Your task to perform on an android device: refresh tabs in the chrome app Image 0: 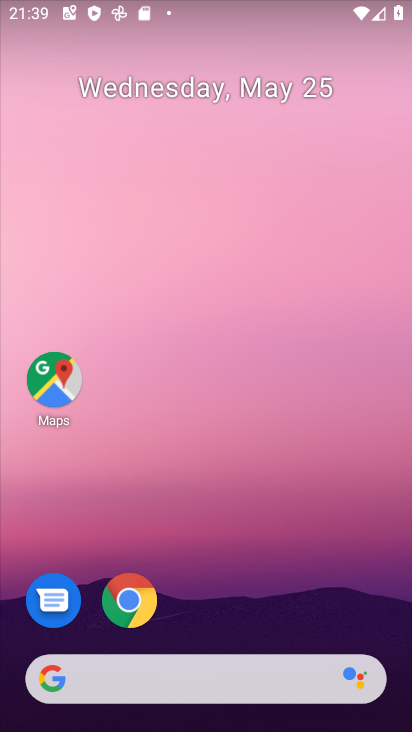
Step 0: drag from (308, 598) to (299, 181)
Your task to perform on an android device: refresh tabs in the chrome app Image 1: 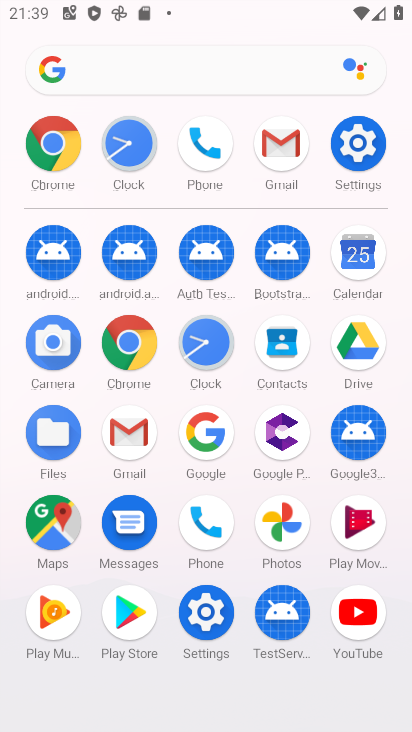
Step 1: click (142, 332)
Your task to perform on an android device: refresh tabs in the chrome app Image 2: 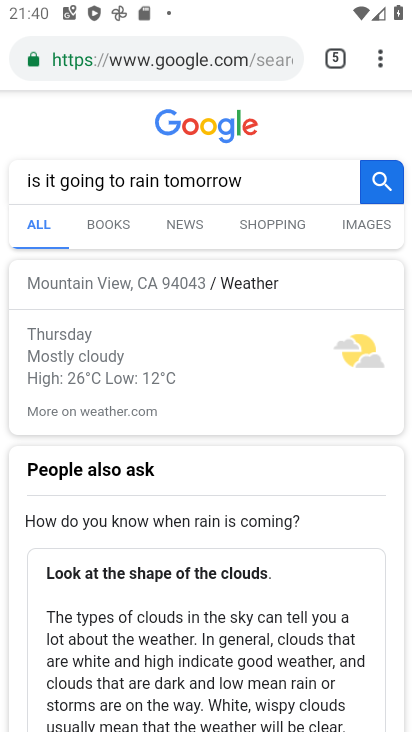
Step 2: click (383, 60)
Your task to perform on an android device: refresh tabs in the chrome app Image 3: 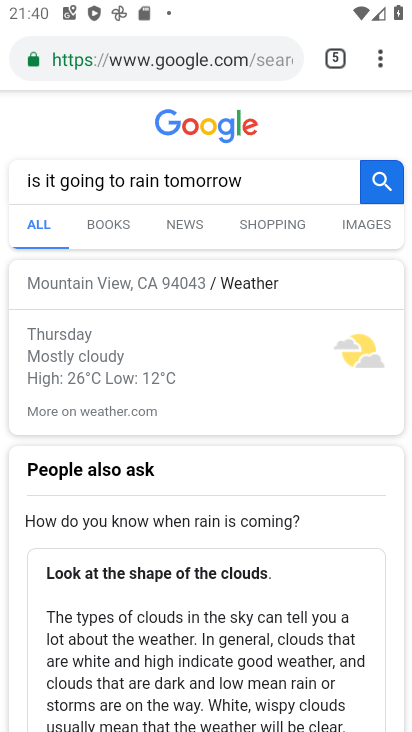
Step 3: task complete